Your task to perform on an android device: What's on my calendar tomorrow? Image 0: 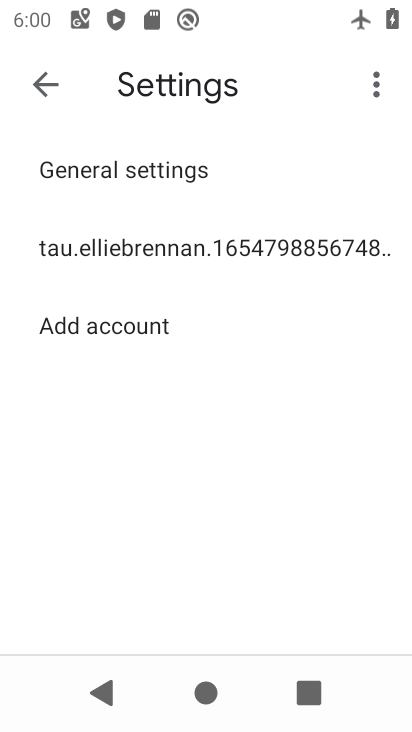
Step 0: press home button
Your task to perform on an android device: What's on my calendar tomorrow? Image 1: 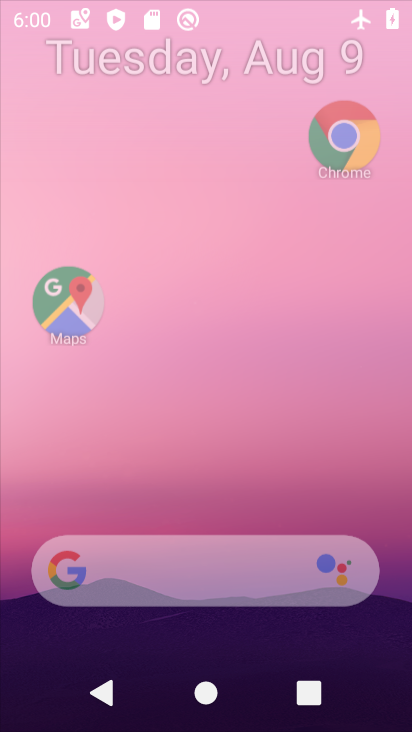
Step 1: drag from (254, 504) to (266, 297)
Your task to perform on an android device: What's on my calendar tomorrow? Image 2: 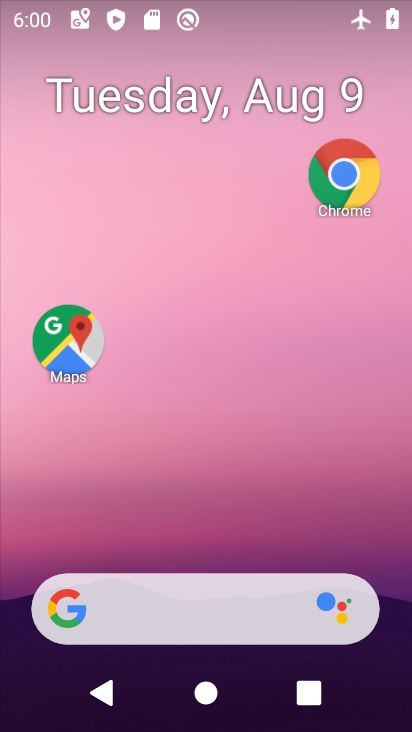
Step 2: drag from (206, 588) to (239, 339)
Your task to perform on an android device: What's on my calendar tomorrow? Image 3: 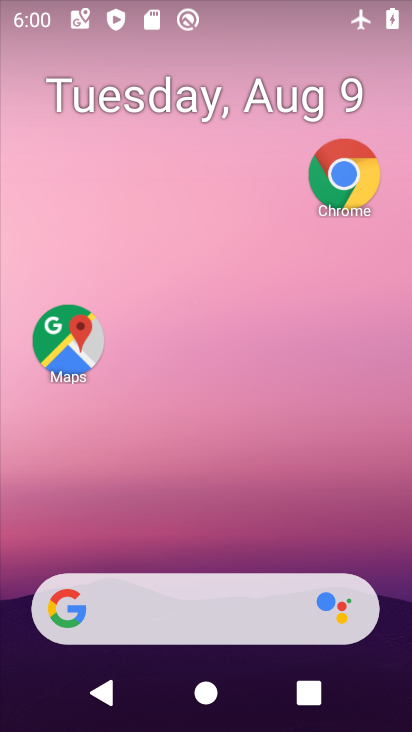
Step 3: drag from (205, 591) to (404, 53)
Your task to perform on an android device: What's on my calendar tomorrow? Image 4: 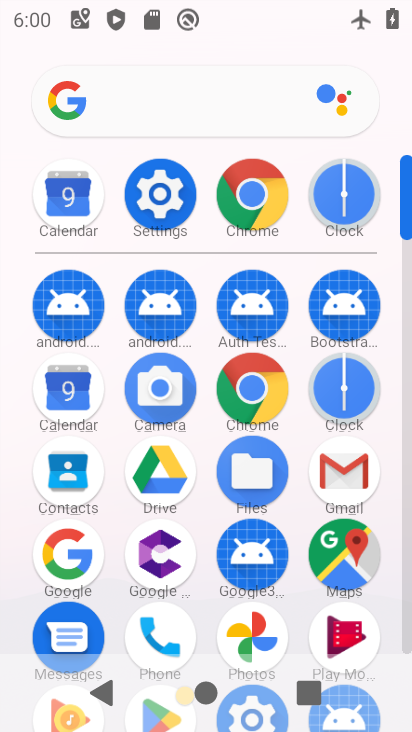
Step 4: drag from (202, 592) to (242, 140)
Your task to perform on an android device: What's on my calendar tomorrow? Image 5: 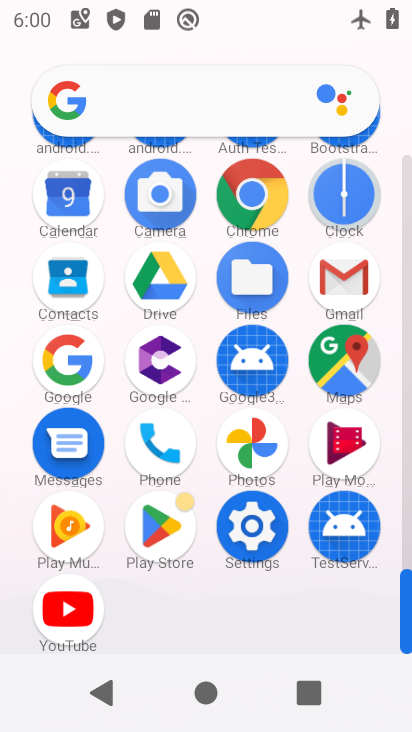
Step 5: drag from (208, 492) to (213, 186)
Your task to perform on an android device: What's on my calendar tomorrow? Image 6: 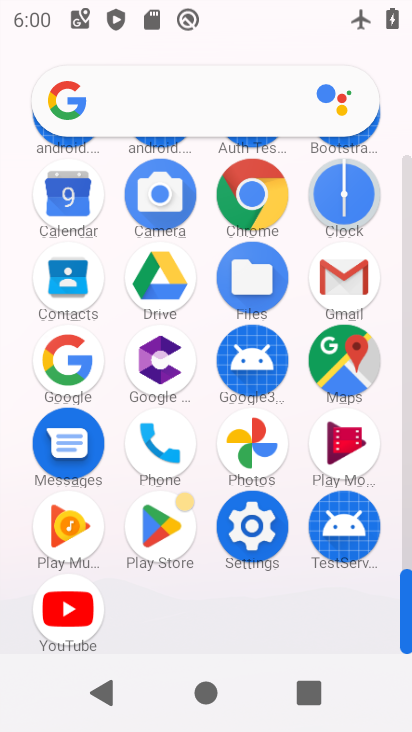
Step 6: drag from (206, 253) to (208, 523)
Your task to perform on an android device: What's on my calendar tomorrow? Image 7: 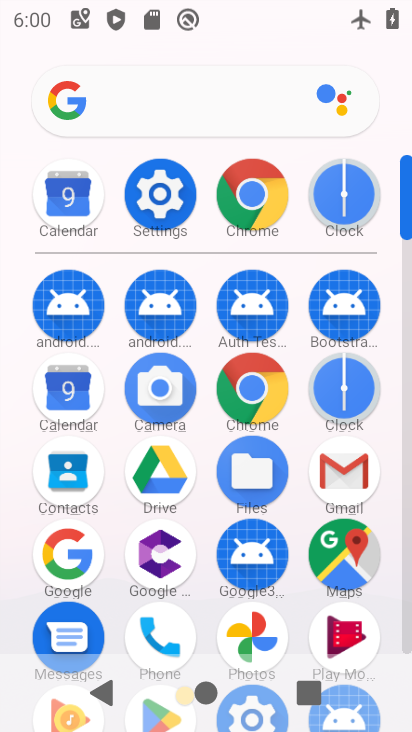
Step 7: click (62, 388)
Your task to perform on an android device: What's on my calendar tomorrow? Image 8: 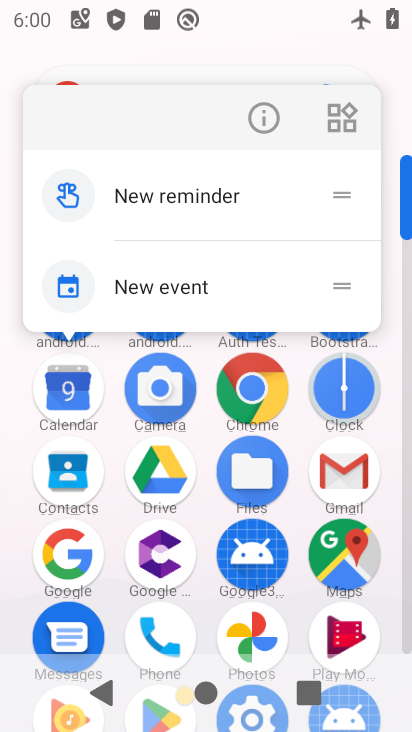
Step 8: click (263, 134)
Your task to perform on an android device: What's on my calendar tomorrow? Image 9: 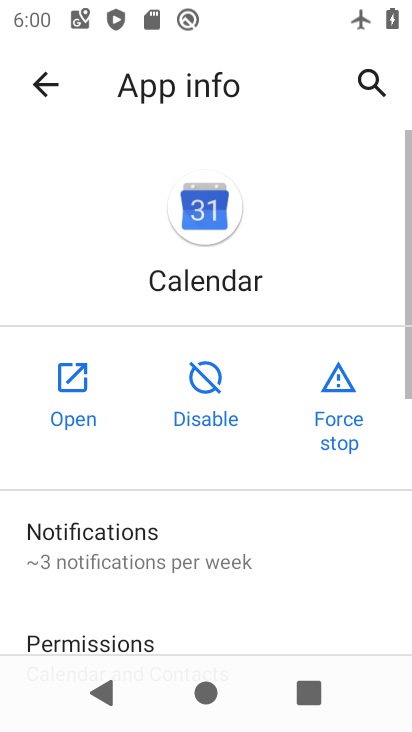
Step 9: click (61, 382)
Your task to perform on an android device: What's on my calendar tomorrow? Image 10: 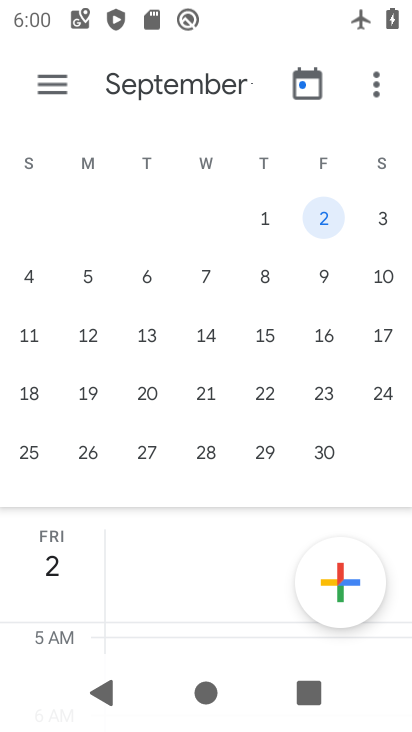
Step 10: click (318, 83)
Your task to perform on an android device: What's on my calendar tomorrow? Image 11: 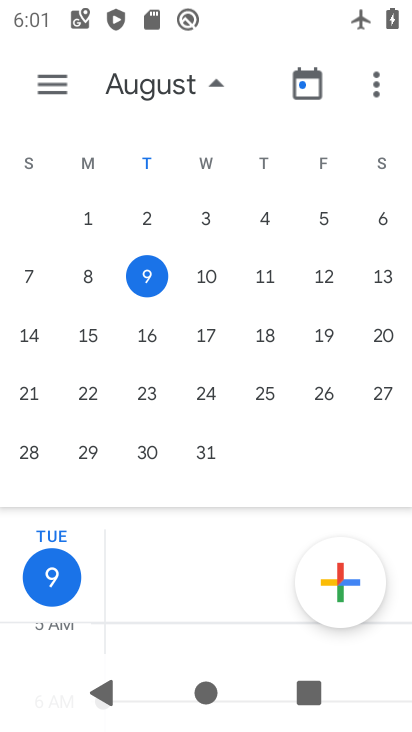
Step 11: click (198, 274)
Your task to perform on an android device: What's on my calendar tomorrow? Image 12: 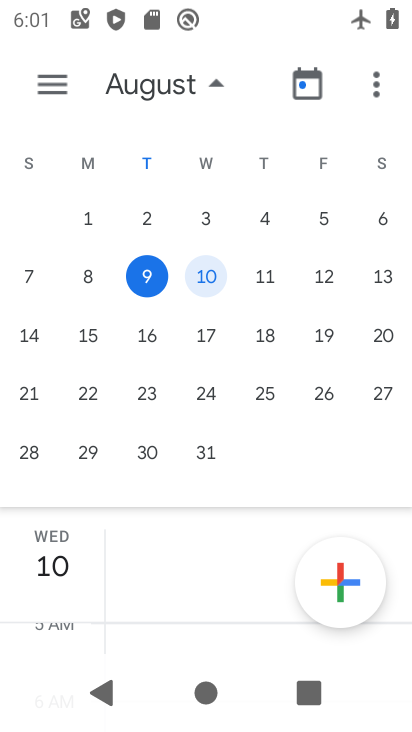
Step 12: task complete